Your task to perform on an android device: Show me recent news Image 0: 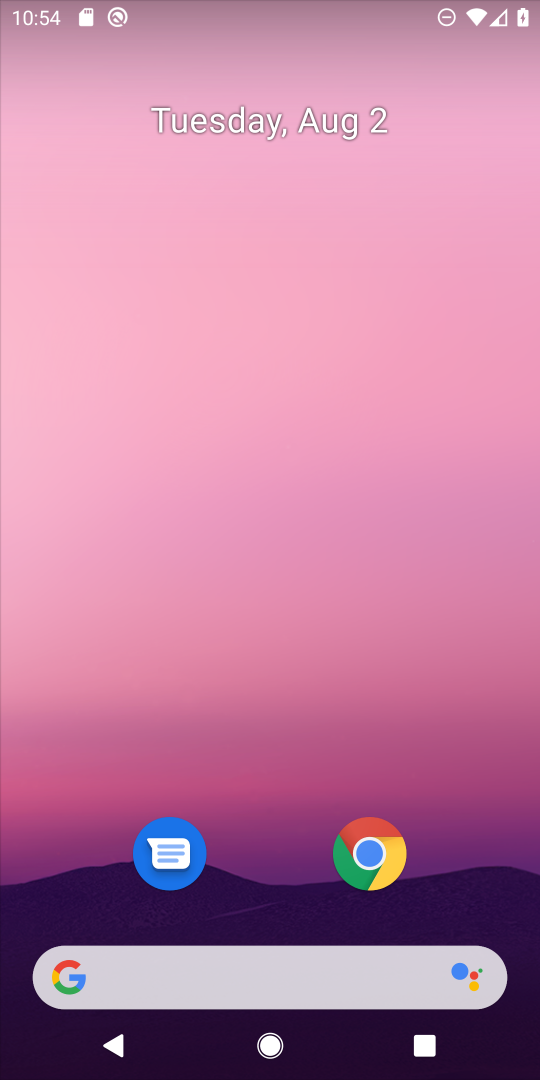
Step 0: drag from (4, 624) to (537, 591)
Your task to perform on an android device: Show me recent news Image 1: 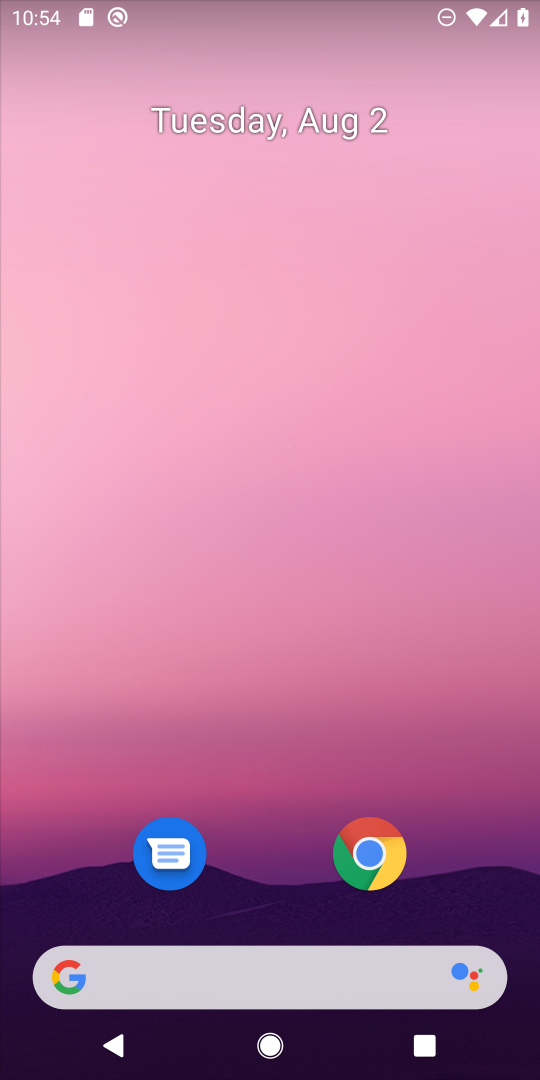
Step 1: task complete